Your task to perform on an android device: turn off picture-in-picture Image 0: 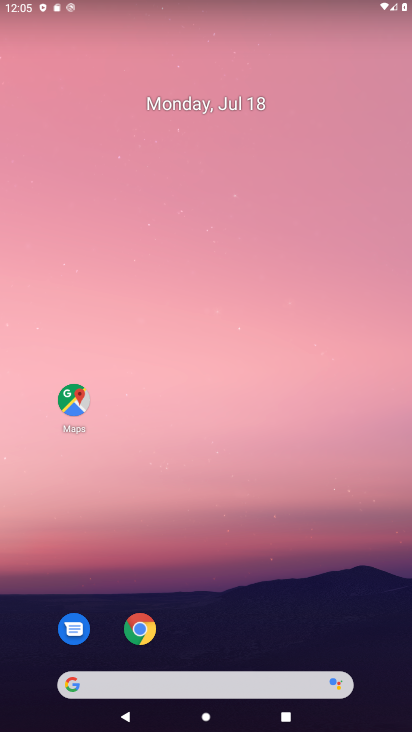
Step 0: press home button
Your task to perform on an android device: turn off picture-in-picture Image 1: 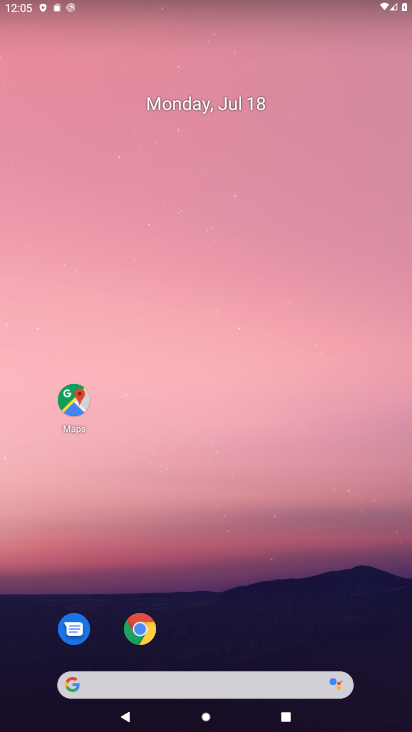
Step 1: click (141, 620)
Your task to perform on an android device: turn off picture-in-picture Image 2: 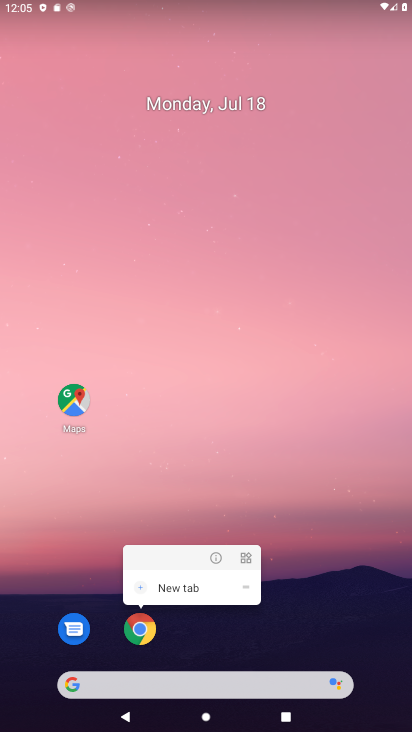
Step 2: click (223, 565)
Your task to perform on an android device: turn off picture-in-picture Image 3: 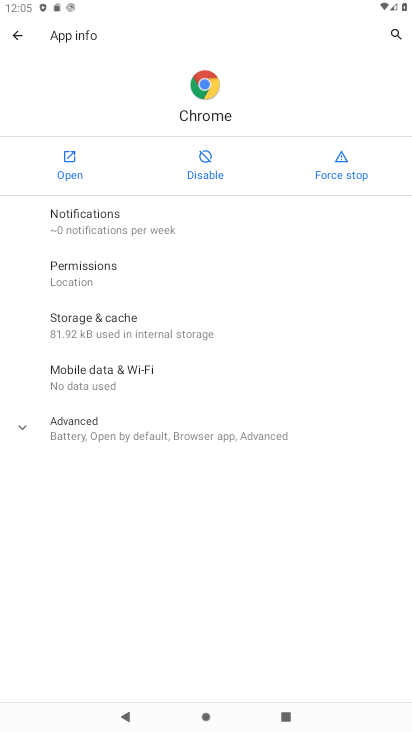
Step 3: click (135, 421)
Your task to perform on an android device: turn off picture-in-picture Image 4: 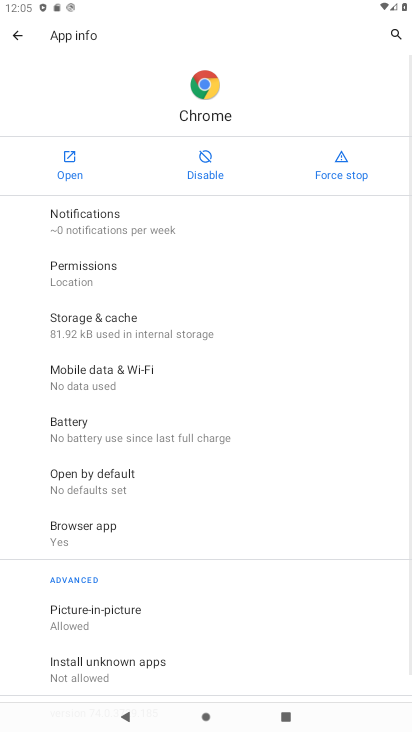
Step 4: click (134, 619)
Your task to perform on an android device: turn off picture-in-picture Image 5: 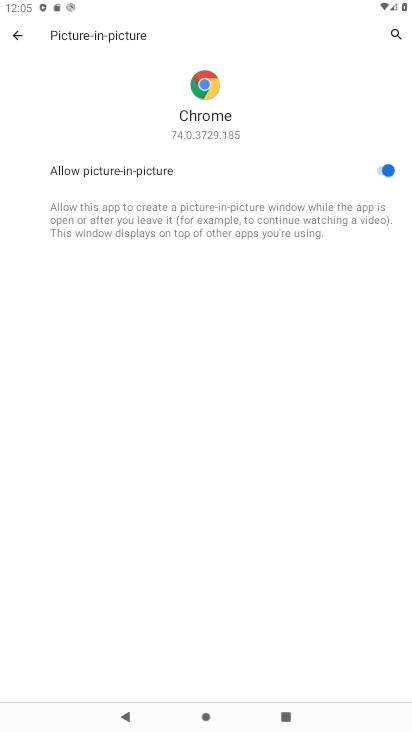
Step 5: click (137, 180)
Your task to perform on an android device: turn off picture-in-picture Image 6: 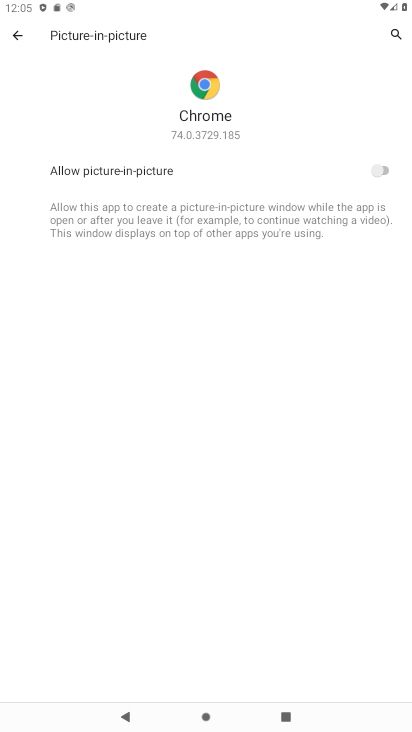
Step 6: task complete